Your task to perform on an android device: allow cookies in the chrome app Image 0: 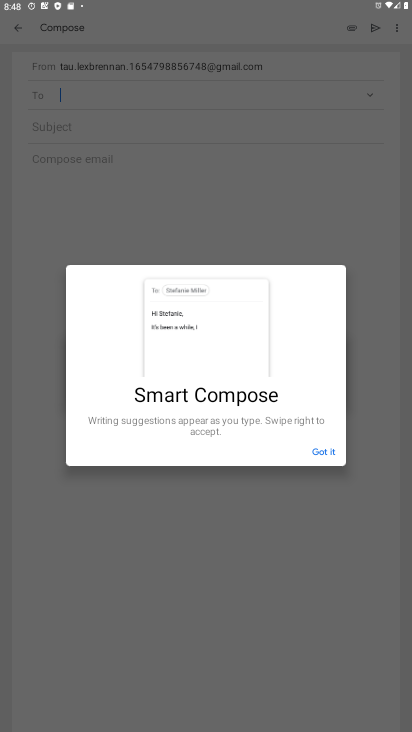
Step 0: press home button
Your task to perform on an android device: allow cookies in the chrome app Image 1: 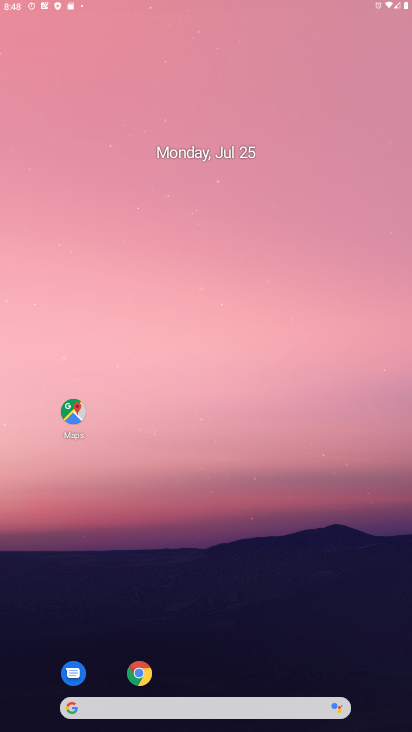
Step 1: drag from (387, 681) to (147, 27)
Your task to perform on an android device: allow cookies in the chrome app Image 2: 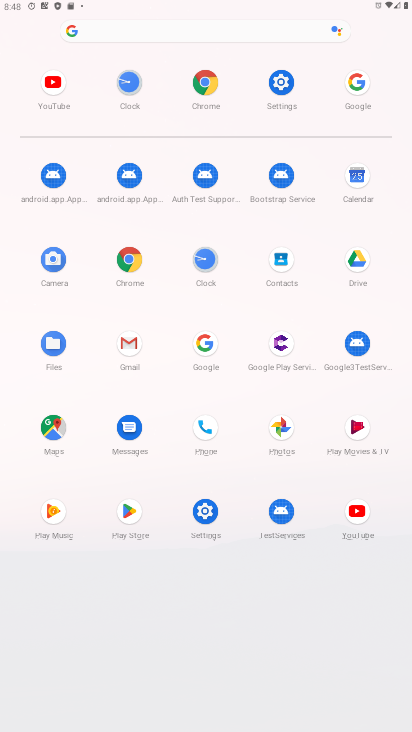
Step 2: click (130, 271)
Your task to perform on an android device: allow cookies in the chrome app Image 3: 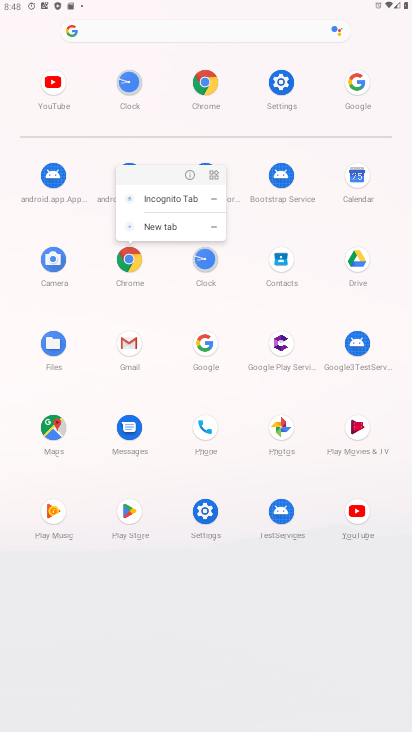
Step 3: click (130, 271)
Your task to perform on an android device: allow cookies in the chrome app Image 4: 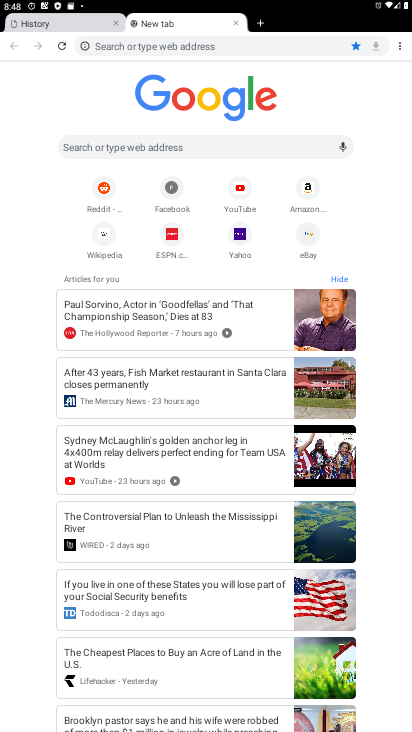
Step 4: click (397, 48)
Your task to perform on an android device: allow cookies in the chrome app Image 5: 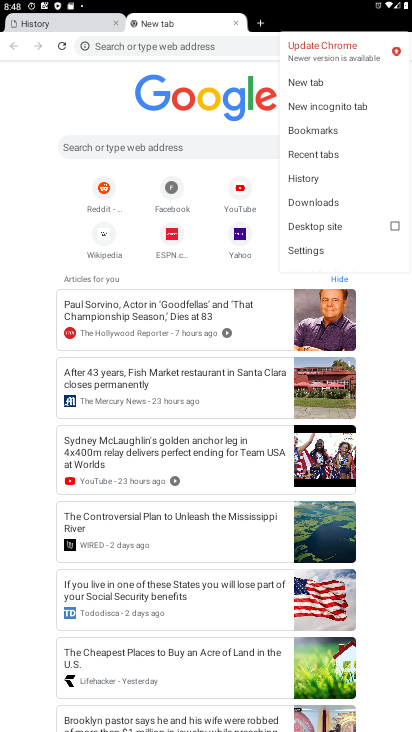
Step 5: click (307, 177)
Your task to perform on an android device: allow cookies in the chrome app Image 6: 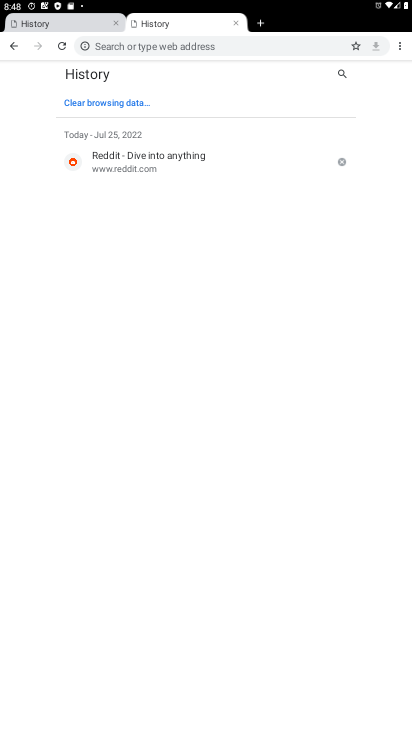
Step 6: click (81, 102)
Your task to perform on an android device: allow cookies in the chrome app Image 7: 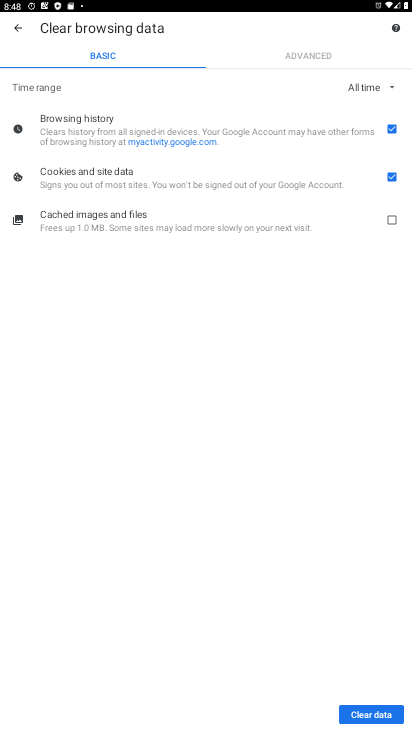
Step 7: task complete